Your task to perform on an android device: Show me recent news Image 0: 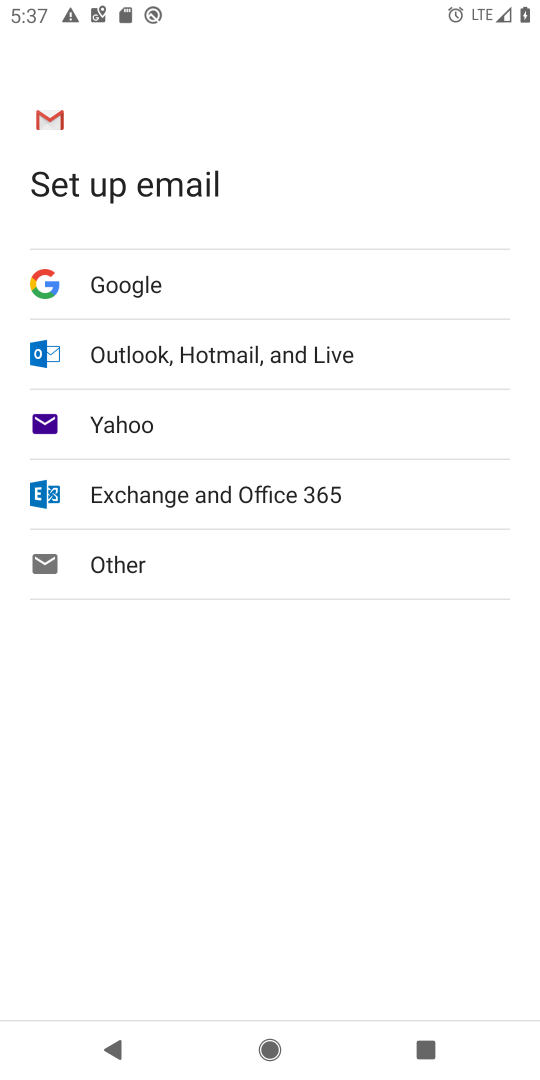
Step 0: press back button
Your task to perform on an android device: Show me recent news Image 1: 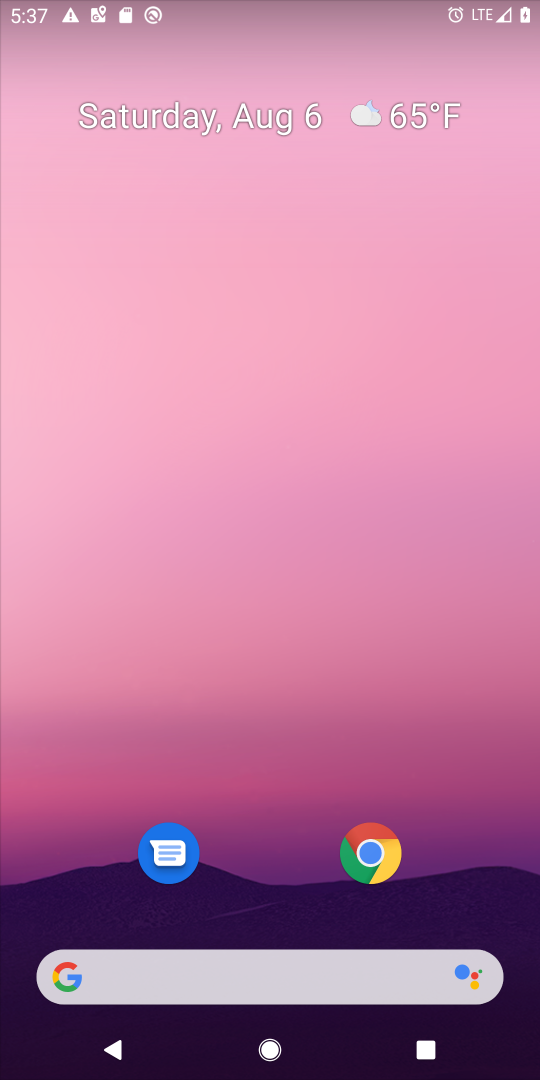
Step 1: click (209, 975)
Your task to perform on an android device: Show me recent news Image 2: 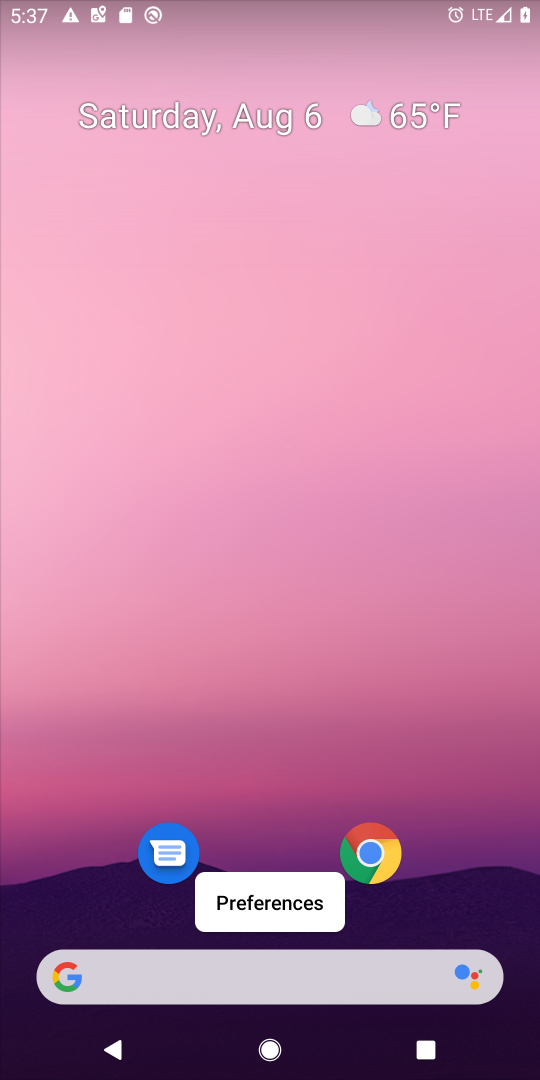
Step 2: click (263, 991)
Your task to perform on an android device: Show me recent news Image 3: 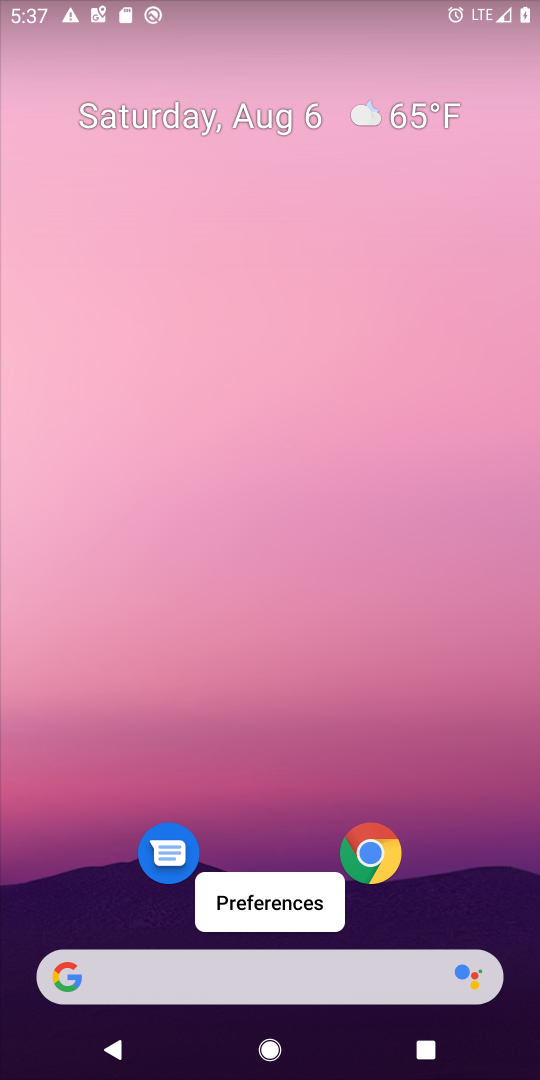
Step 3: click (184, 987)
Your task to perform on an android device: Show me recent news Image 4: 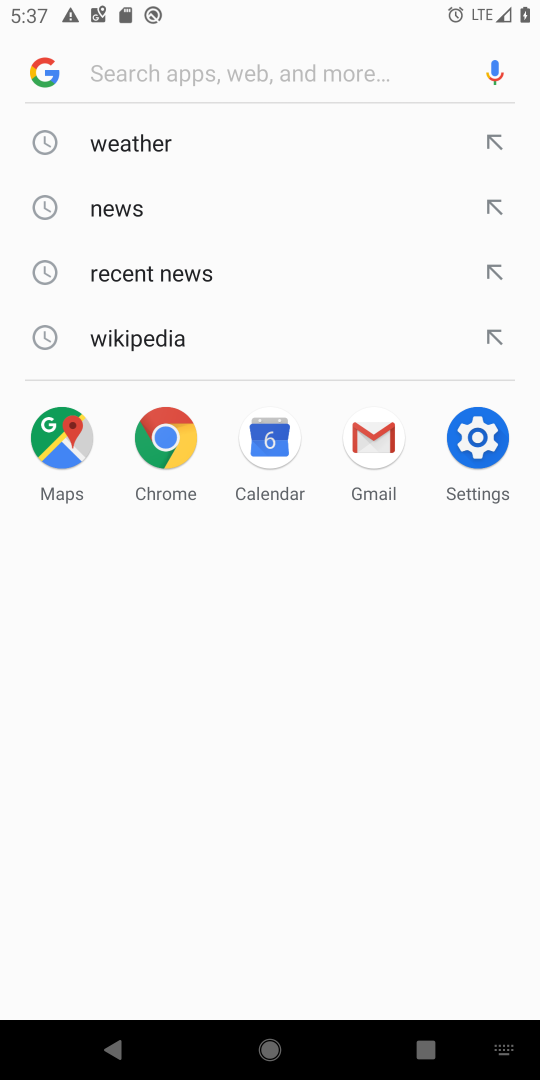
Step 4: click (140, 270)
Your task to perform on an android device: Show me recent news Image 5: 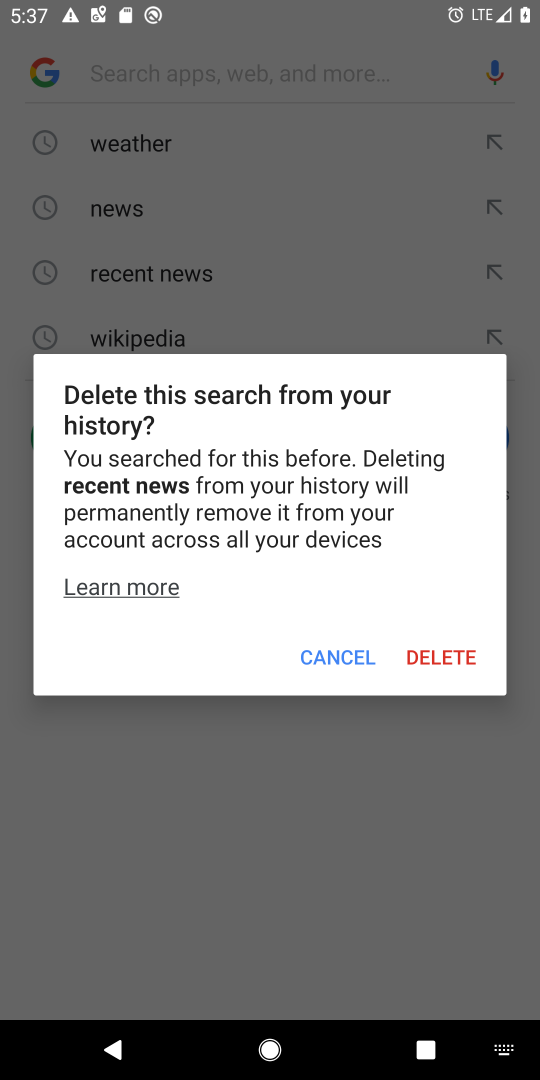
Step 5: click (327, 655)
Your task to perform on an android device: Show me recent news Image 6: 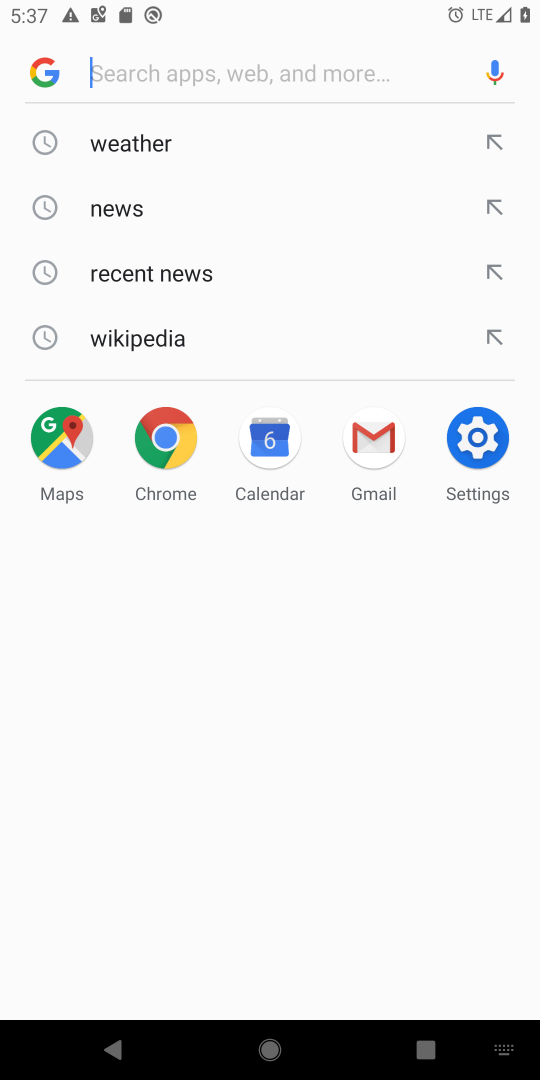
Step 6: click (198, 278)
Your task to perform on an android device: Show me recent news Image 7: 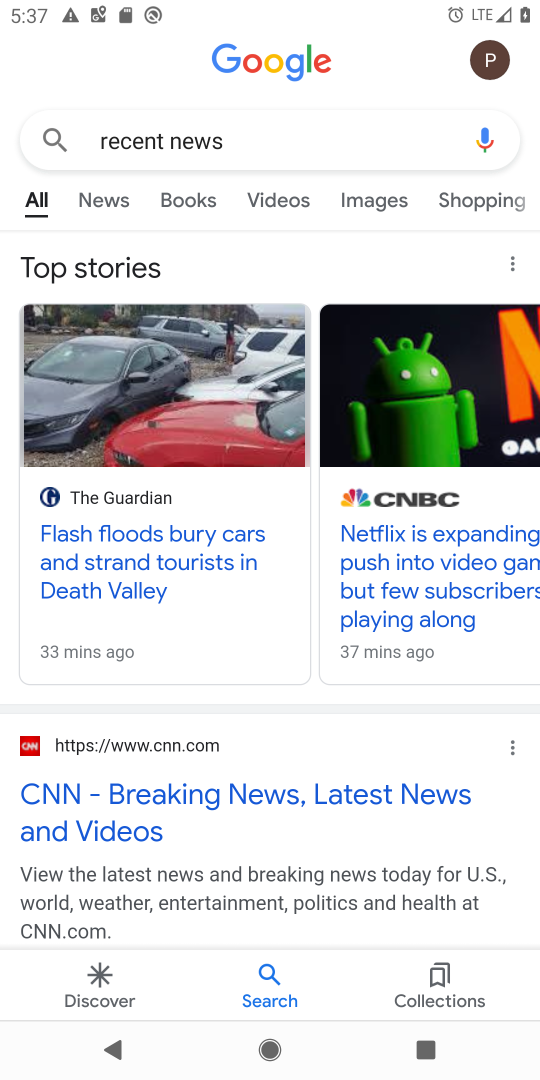
Step 7: task complete